Your task to perform on an android device: Go to accessibility settings Image 0: 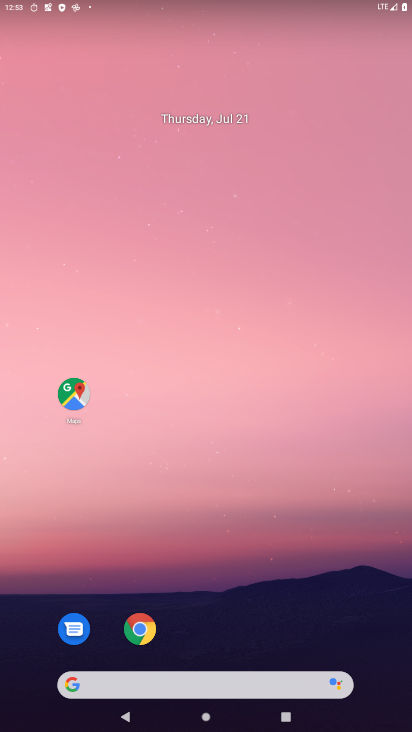
Step 0: drag from (198, 682) to (193, 38)
Your task to perform on an android device: Go to accessibility settings Image 1: 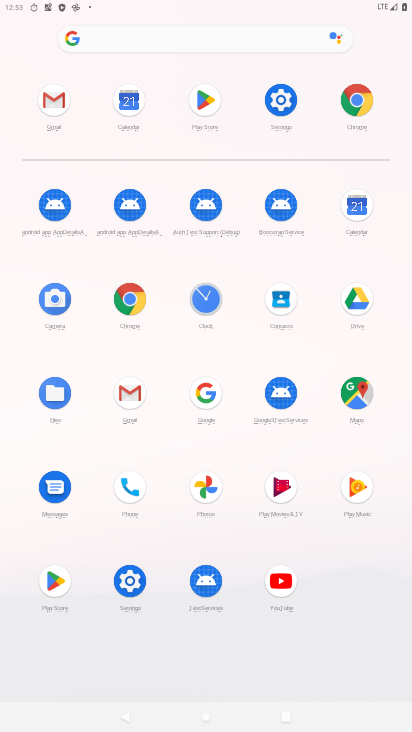
Step 1: click (286, 93)
Your task to perform on an android device: Go to accessibility settings Image 2: 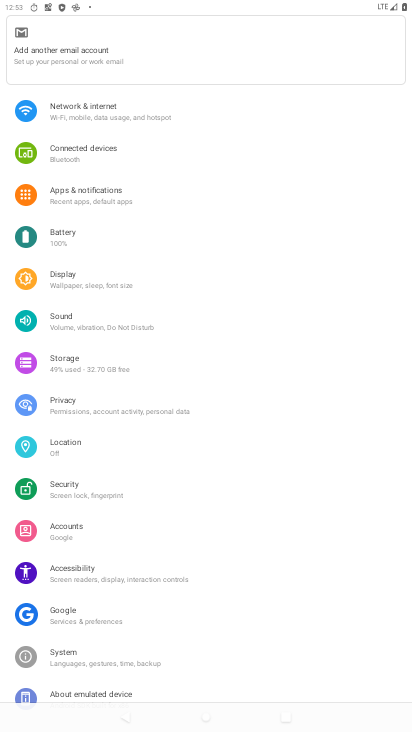
Step 2: click (118, 577)
Your task to perform on an android device: Go to accessibility settings Image 3: 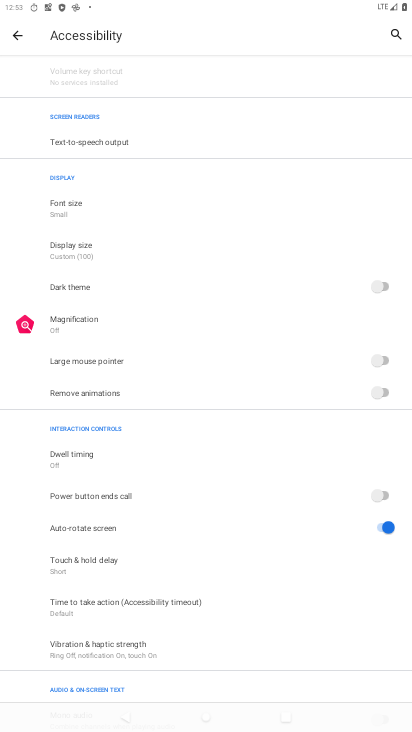
Step 3: task complete